Your task to perform on an android device: Open Youtube and go to "Your channel" Image 0: 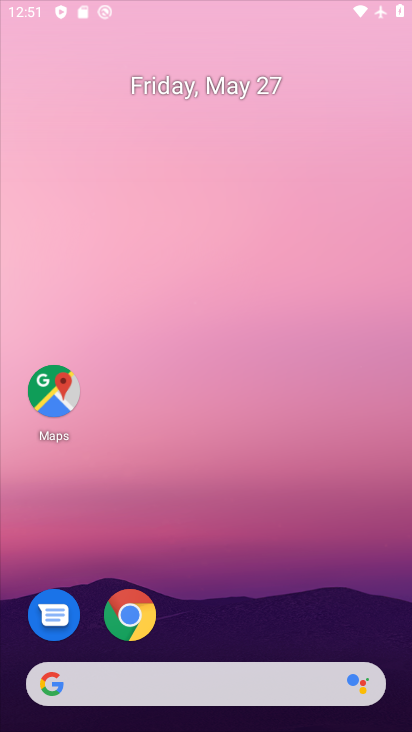
Step 0: press home button
Your task to perform on an android device: Open Youtube and go to "Your channel" Image 1: 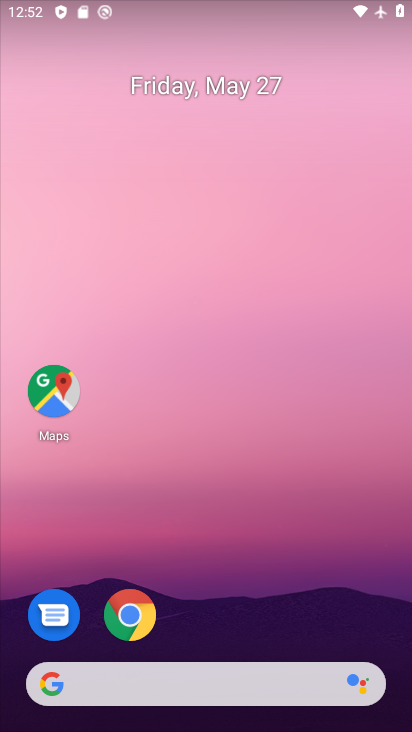
Step 1: press home button
Your task to perform on an android device: Open Youtube and go to "Your channel" Image 2: 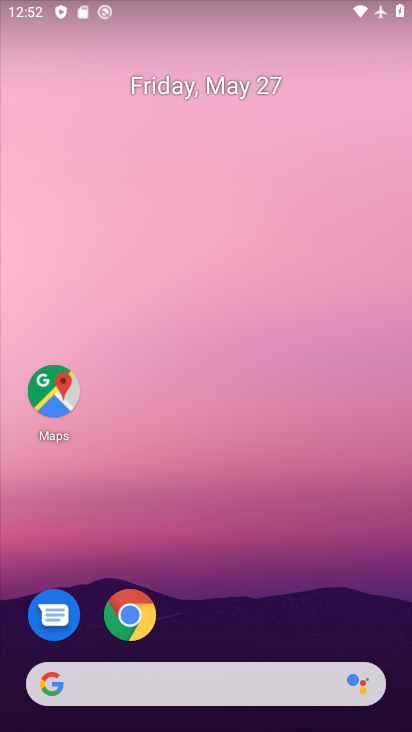
Step 2: drag from (307, 619) to (307, 225)
Your task to perform on an android device: Open Youtube and go to "Your channel" Image 3: 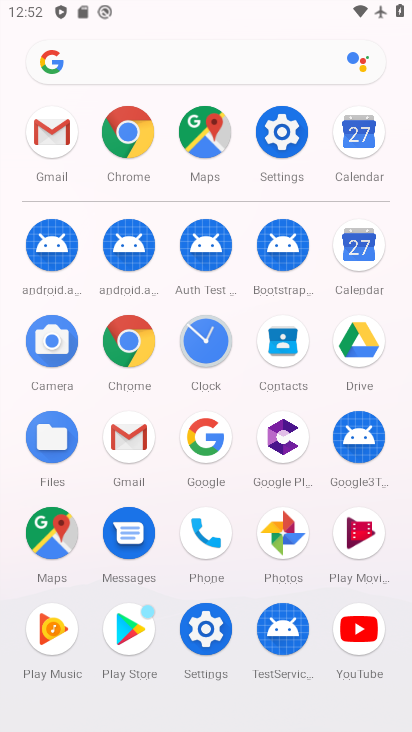
Step 3: click (367, 624)
Your task to perform on an android device: Open Youtube and go to "Your channel" Image 4: 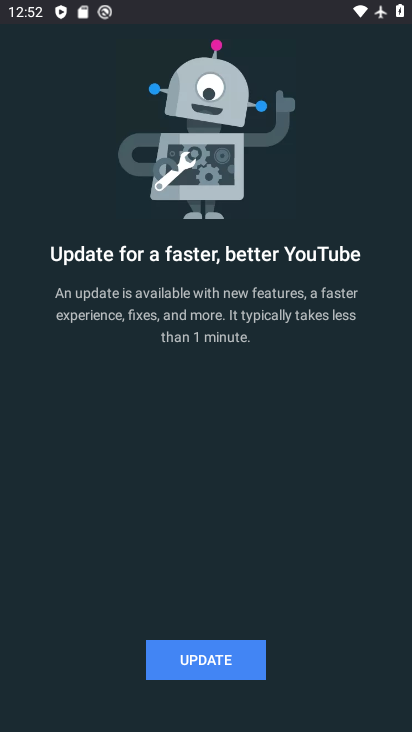
Step 4: click (226, 675)
Your task to perform on an android device: Open Youtube and go to "Your channel" Image 5: 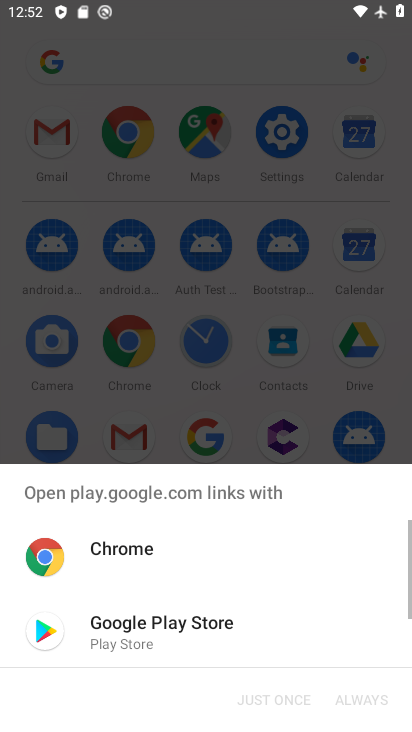
Step 5: click (124, 620)
Your task to perform on an android device: Open Youtube and go to "Your channel" Image 6: 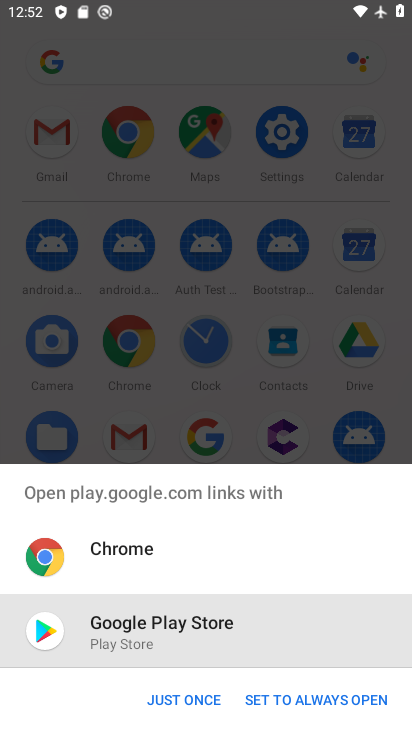
Step 6: click (170, 705)
Your task to perform on an android device: Open Youtube and go to "Your channel" Image 7: 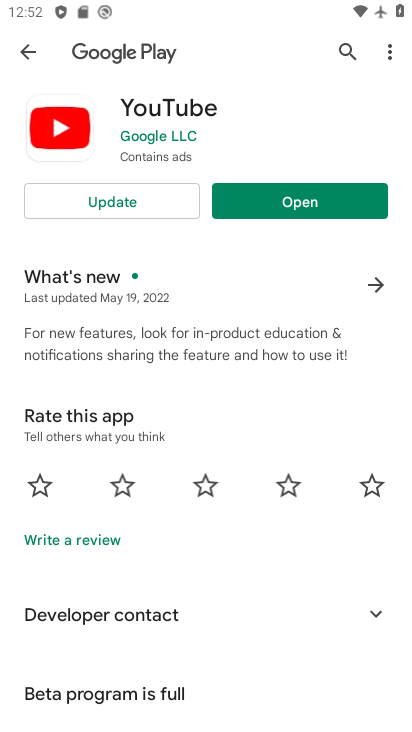
Step 7: click (82, 208)
Your task to perform on an android device: Open Youtube and go to "Your channel" Image 8: 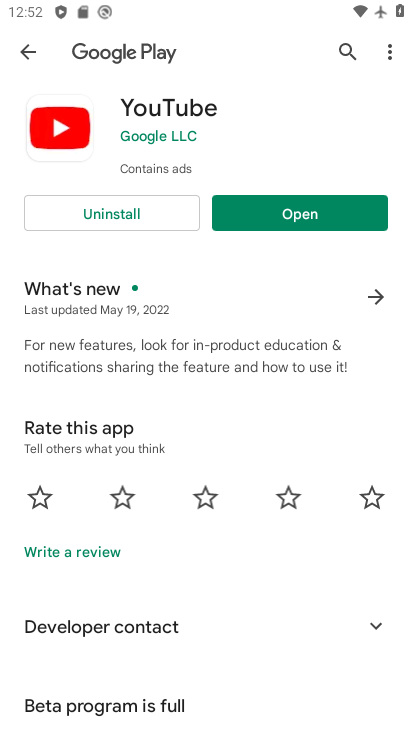
Step 8: click (249, 206)
Your task to perform on an android device: Open Youtube and go to "Your channel" Image 9: 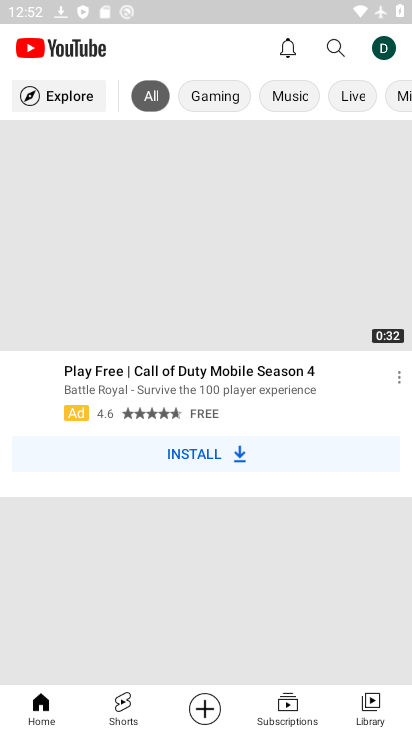
Step 9: click (381, 44)
Your task to perform on an android device: Open Youtube and go to "Your channel" Image 10: 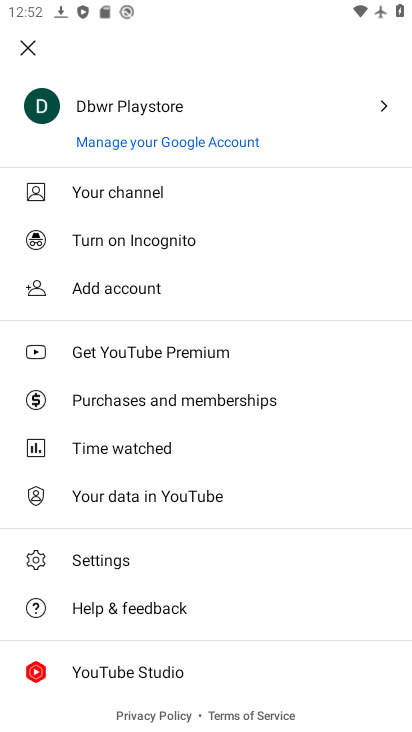
Step 10: click (122, 189)
Your task to perform on an android device: Open Youtube and go to "Your channel" Image 11: 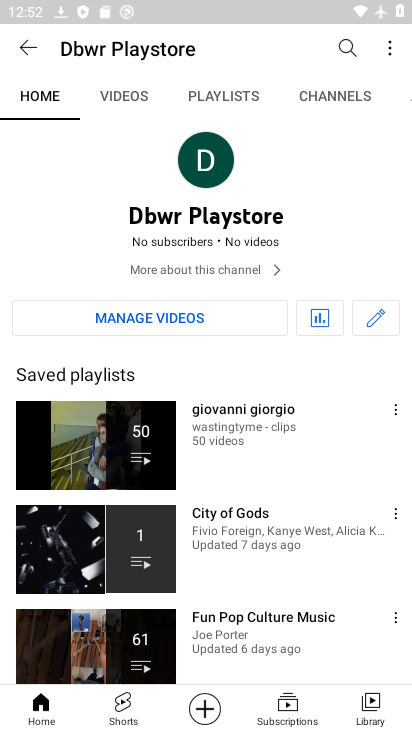
Step 11: task complete